Your task to perform on an android device: Go to calendar. Show me events next week Image 0: 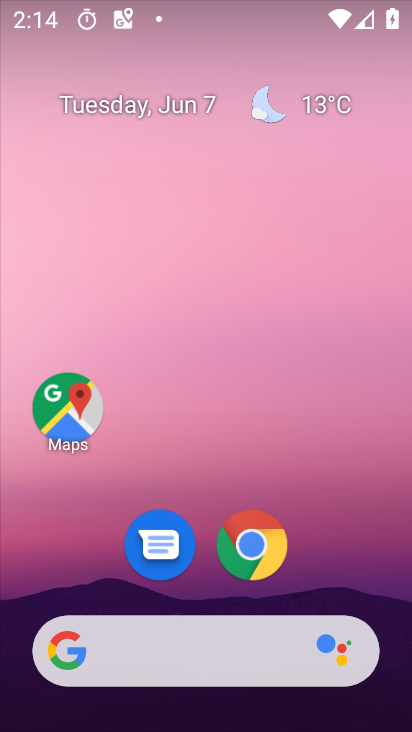
Step 0: click (168, 110)
Your task to perform on an android device: Go to calendar. Show me events next week Image 1: 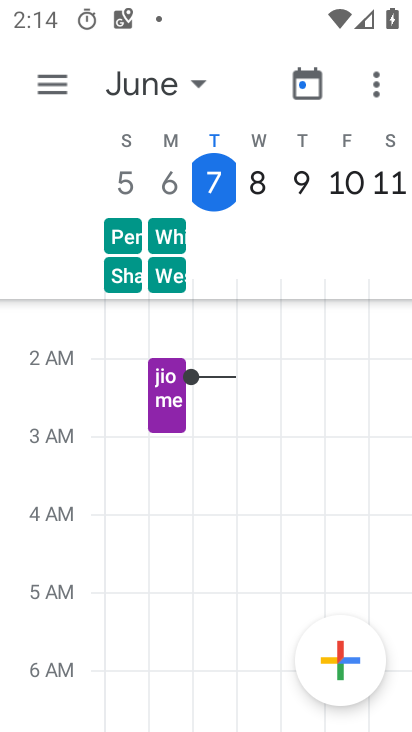
Step 1: click (187, 82)
Your task to perform on an android device: Go to calendar. Show me events next week Image 2: 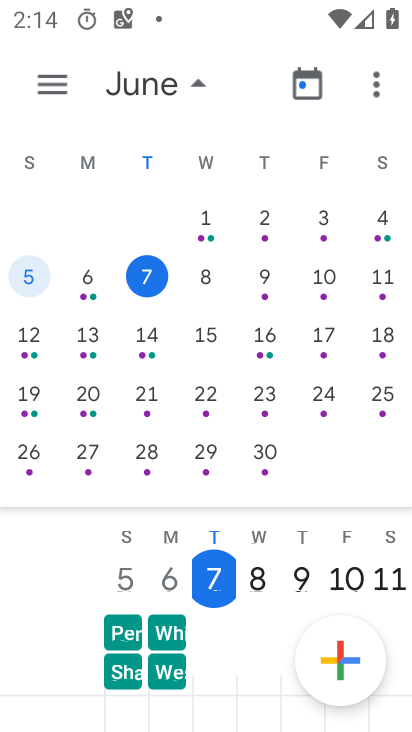
Step 2: click (29, 339)
Your task to perform on an android device: Go to calendar. Show me events next week Image 3: 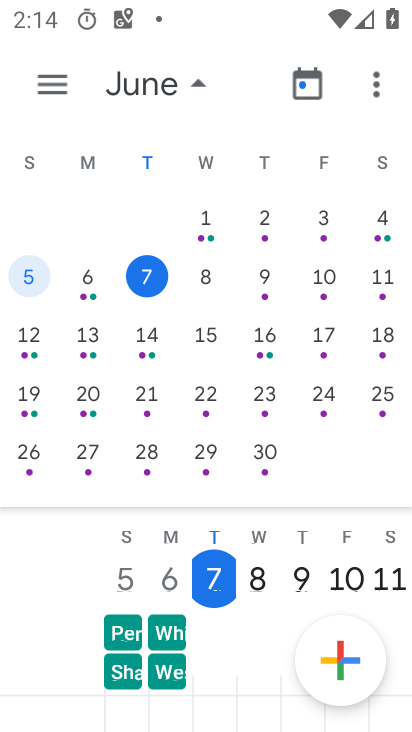
Step 3: click (45, 340)
Your task to perform on an android device: Go to calendar. Show me events next week Image 4: 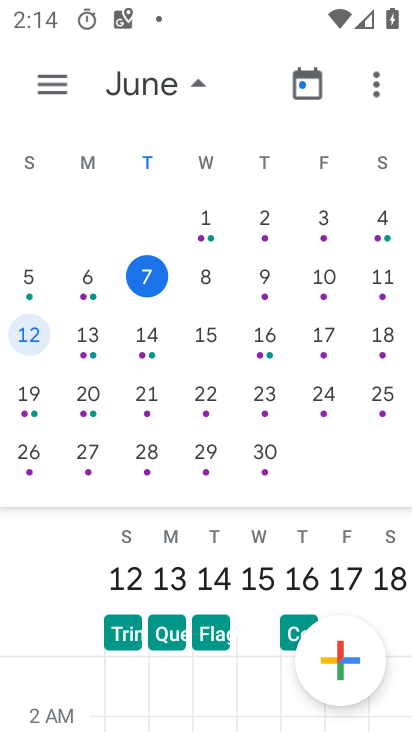
Step 4: task complete